Your task to perform on an android device: Search for seafood restaurants on Google Maps Image 0: 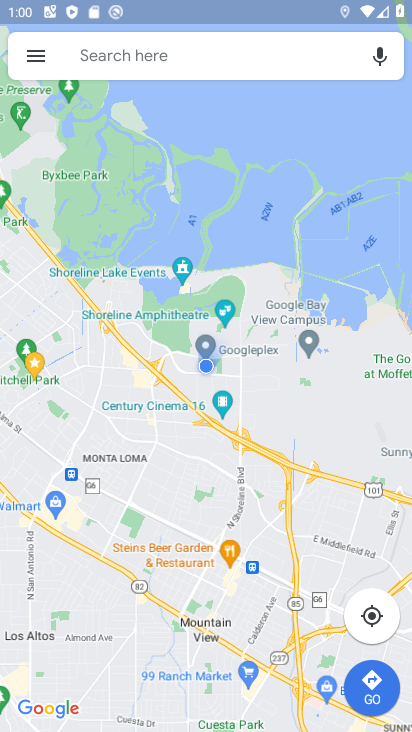
Step 0: press home button
Your task to perform on an android device: Search for seafood restaurants on Google Maps Image 1: 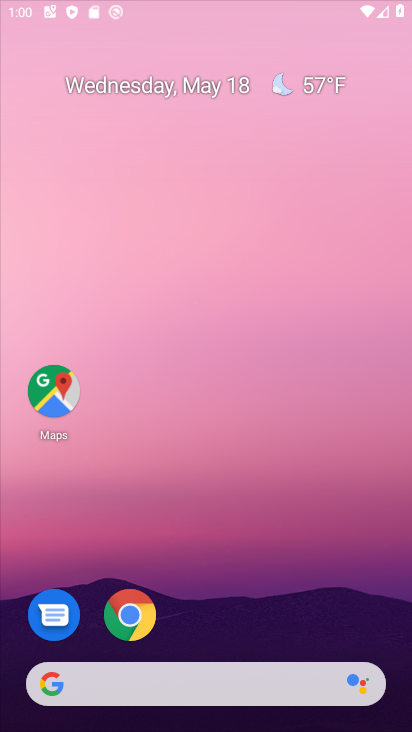
Step 1: drag from (355, 637) to (252, 124)
Your task to perform on an android device: Search for seafood restaurants on Google Maps Image 2: 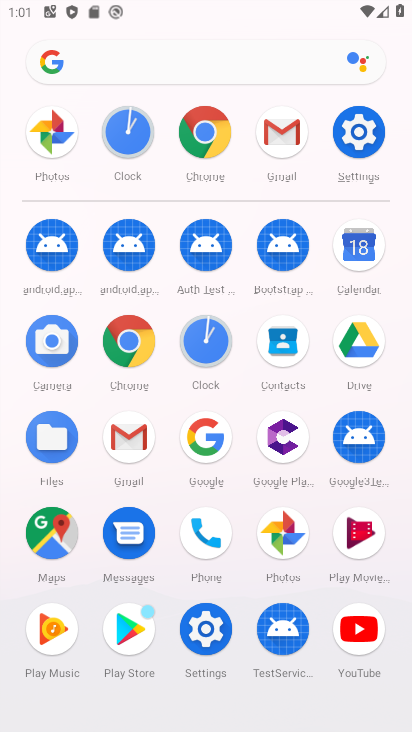
Step 2: click (60, 542)
Your task to perform on an android device: Search for seafood restaurants on Google Maps Image 3: 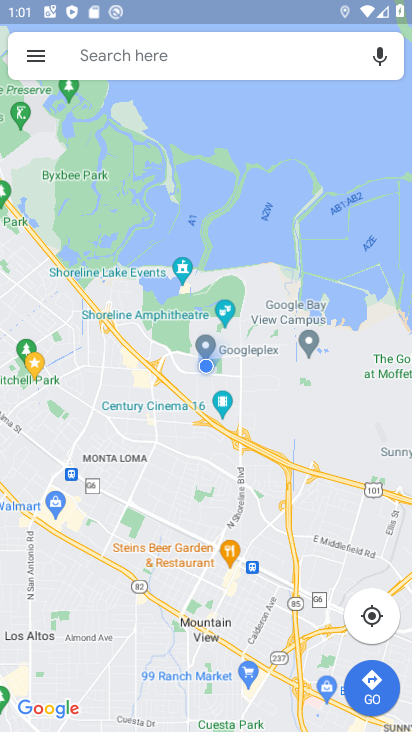
Step 3: click (116, 55)
Your task to perform on an android device: Search for seafood restaurants on Google Maps Image 4: 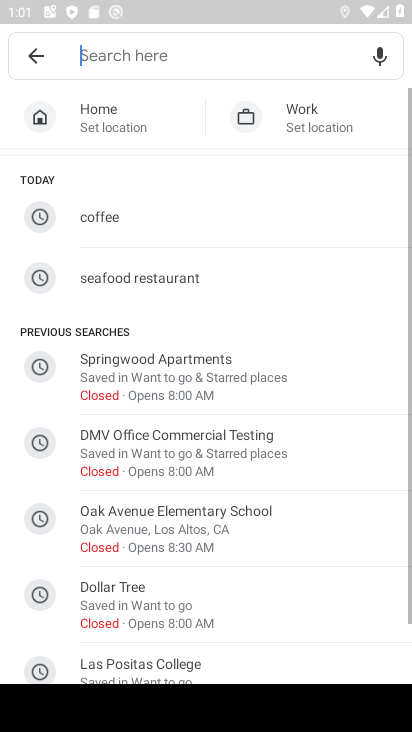
Step 4: click (172, 274)
Your task to perform on an android device: Search for seafood restaurants on Google Maps Image 5: 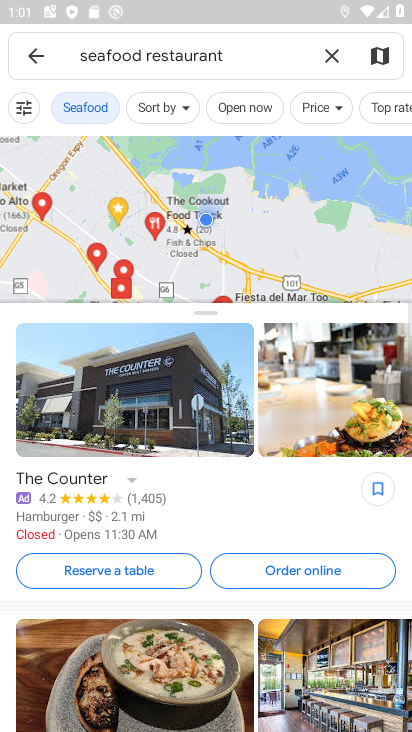
Step 5: task complete